Your task to perform on an android device: check data usage Image 0: 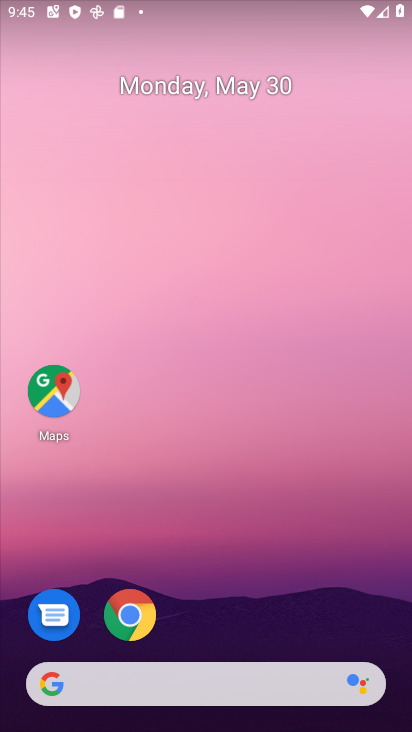
Step 0: drag from (260, 197) to (225, 23)
Your task to perform on an android device: check data usage Image 1: 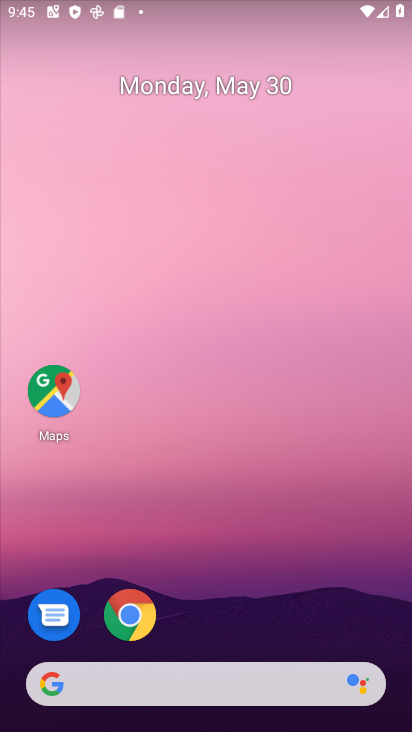
Step 1: drag from (299, 558) to (173, 17)
Your task to perform on an android device: check data usage Image 2: 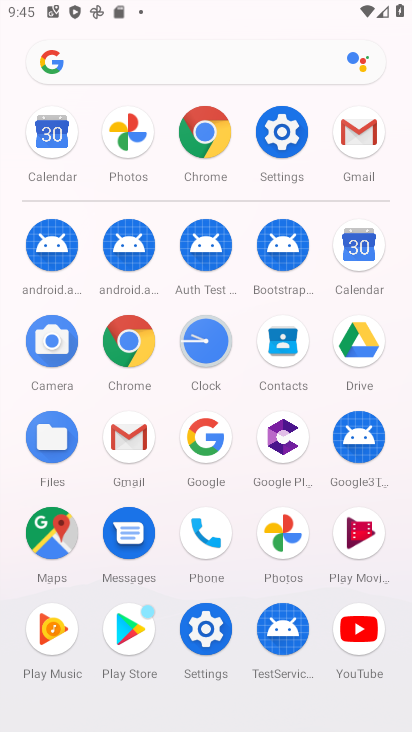
Step 2: click (295, 138)
Your task to perform on an android device: check data usage Image 3: 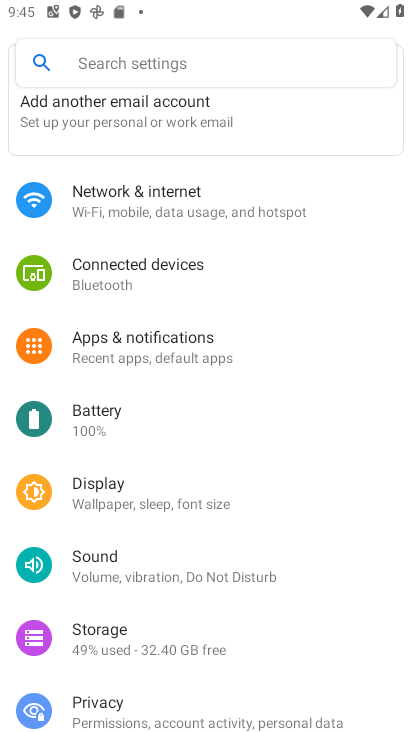
Step 3: click (170, 209)
Your task to perform on an android device: check data usage Image 4: 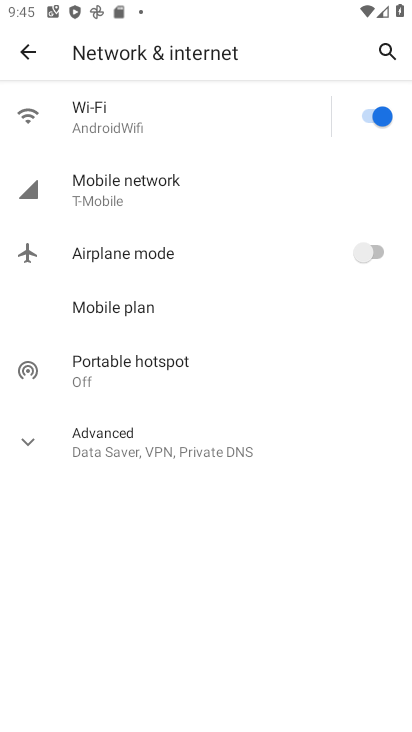
Step 4: click (152, 197)
Your task to perform on an android device: check data usage Image 5: 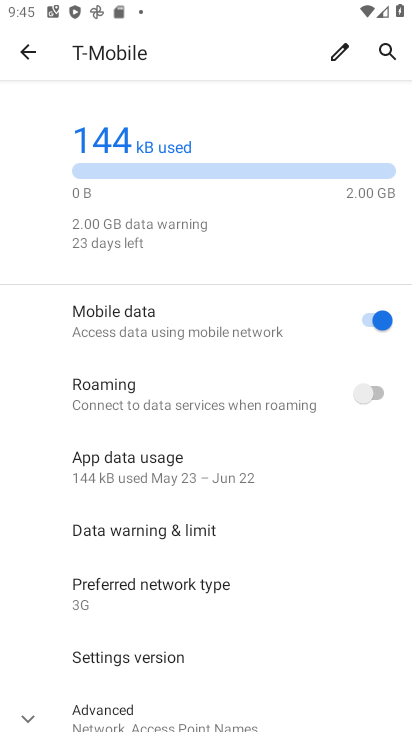
Step 5: task complete